Your task to perform on an android device: toggle wifi Image 0: 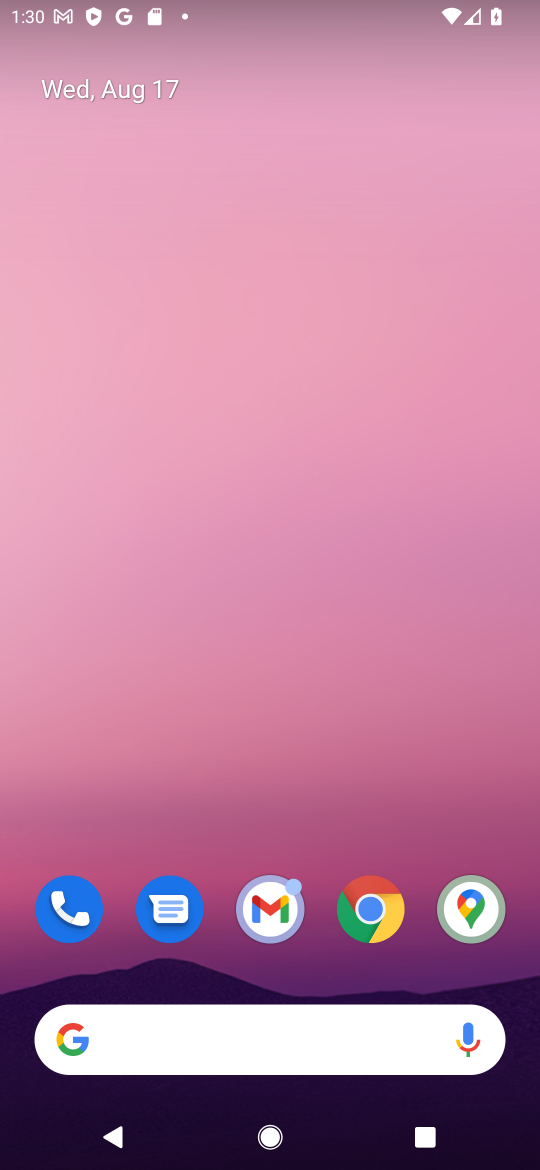
Step 0: drag from (327, 624) to (365, 11)
Your task to perform on an android device: toggle wifi Image 1: 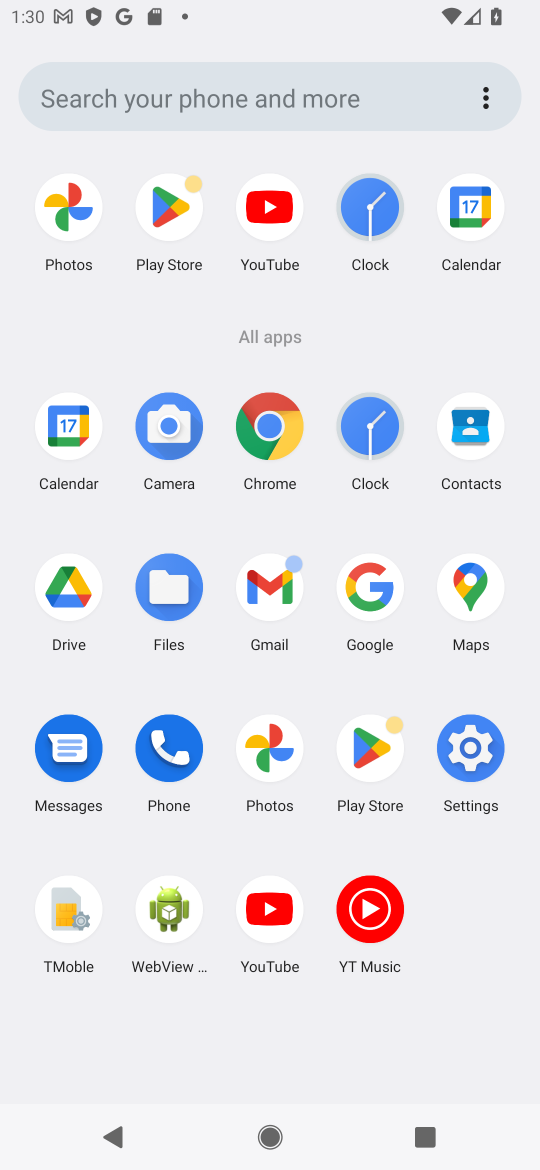
Step 1: task complete